Your task to perform on an android device: open app "Truecaller" (install if not already installed) Image 0: 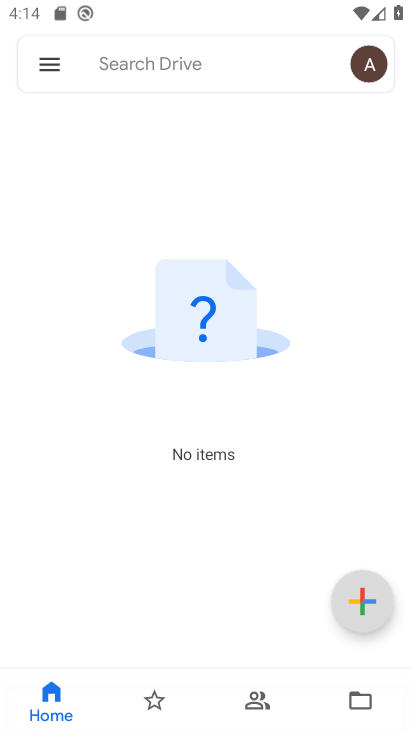
Step 0: press home button
Your task to perform on an android device: open app "Truecaller" (install if not already installed) Image 1: 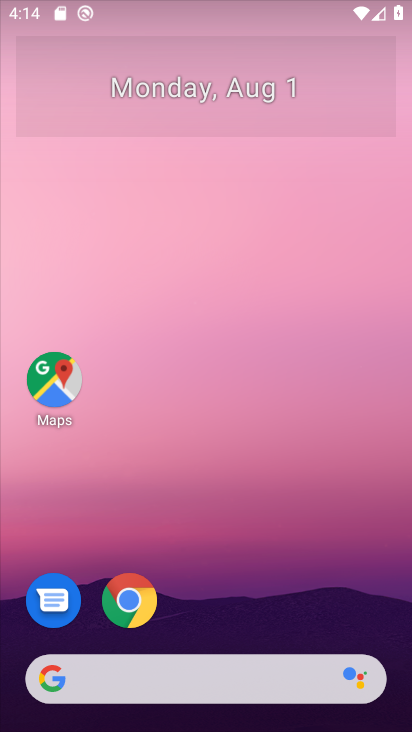
Step 1: drag from (303, 551) to (251, 62)
Your task to perform on an android device: open app "Truecaller" (install if not already installed) Image 2: 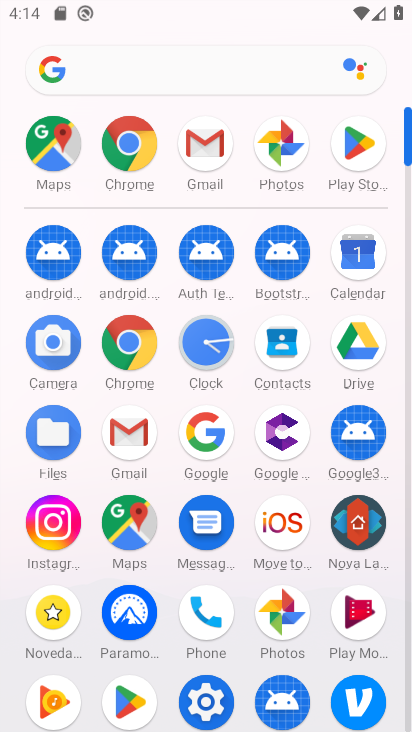
Step 2: click (360, 141)
Your task to perform on an android device: open app "Truecaller" (install if not already installed) Image 3: 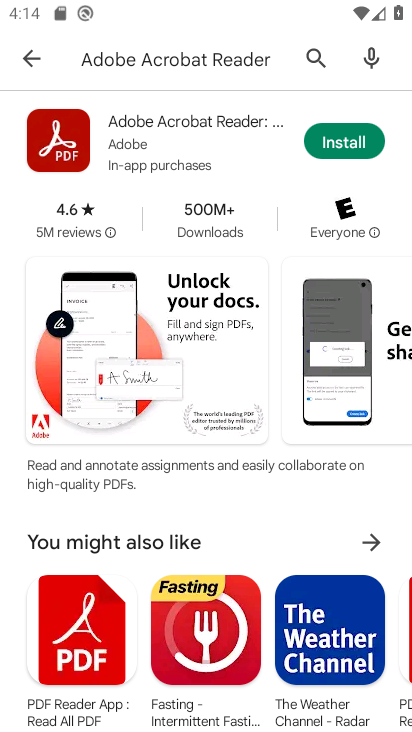
Step 3: click (262, 54)
Your task to perform on an android device: open app "Truecaller" (install if not already installed) Image 4: 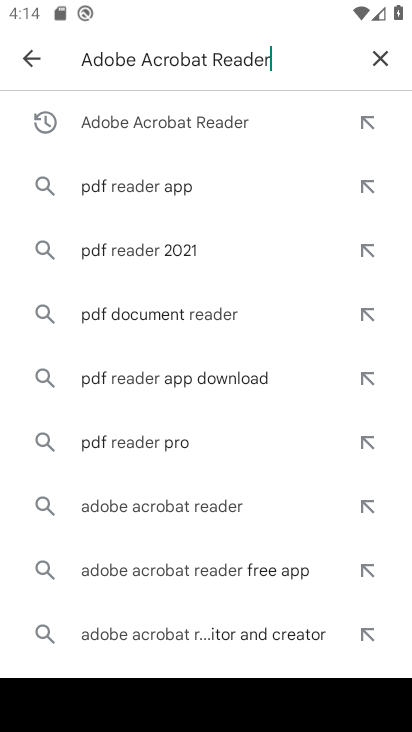
Step 4: click (364, 59)
Your task to perform on an android device: open app "Truecaller" (install if not already installed) Image 5: 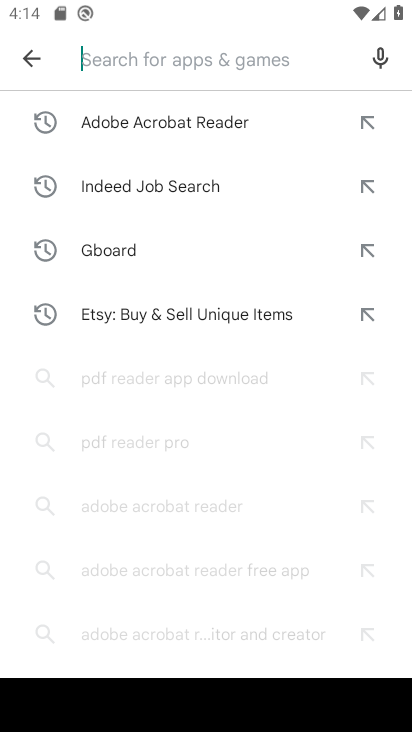
Step 5: click (378, 52)
Your task to perform on an android device: open app "Truecaller" (install if not already installed) Image 6: 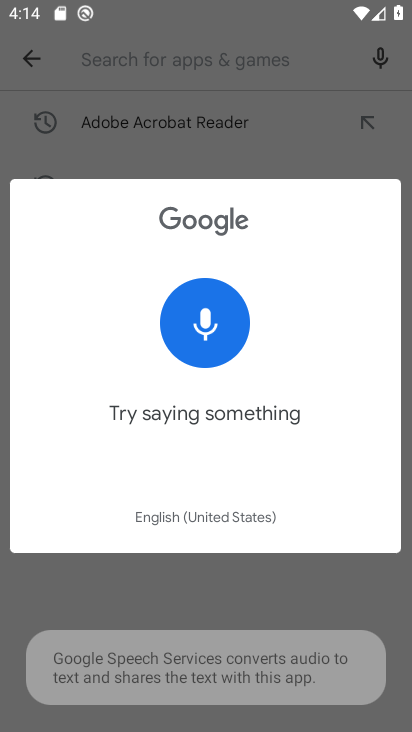
Step 6: click (329, 96)
Your task to perform on an android device: open app "Truecaller" (install if not already installed) Image 7: 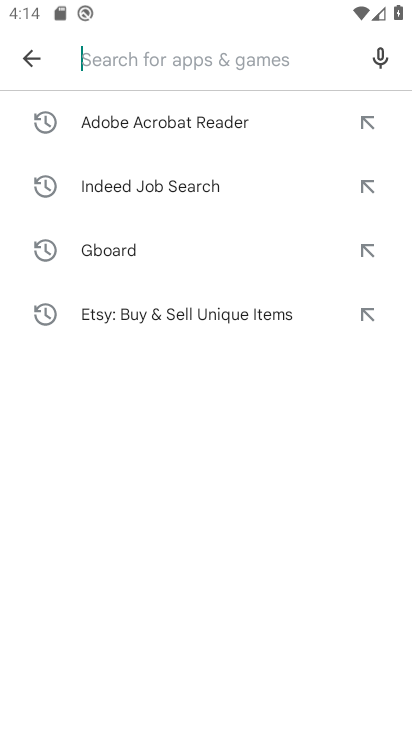
Step 7: click (310, 65)
Your task to perform on an android device: open app "Truecaller" (install if not already installed) Image 8: 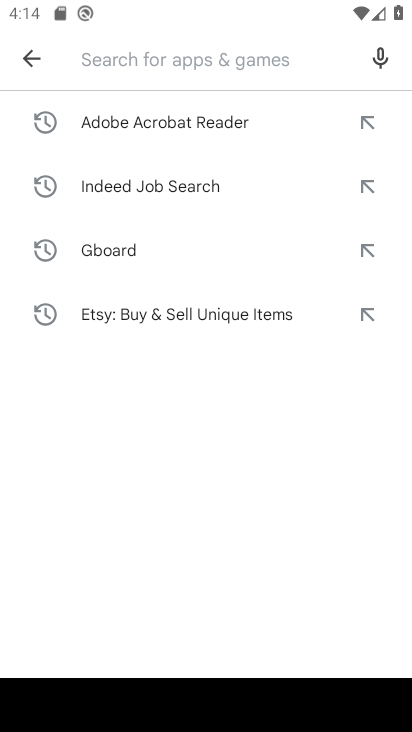
Step 8: type "Truecaller"
Your task to perform on an android device: open app "Truecaller" (install if not already installed) Image 9: 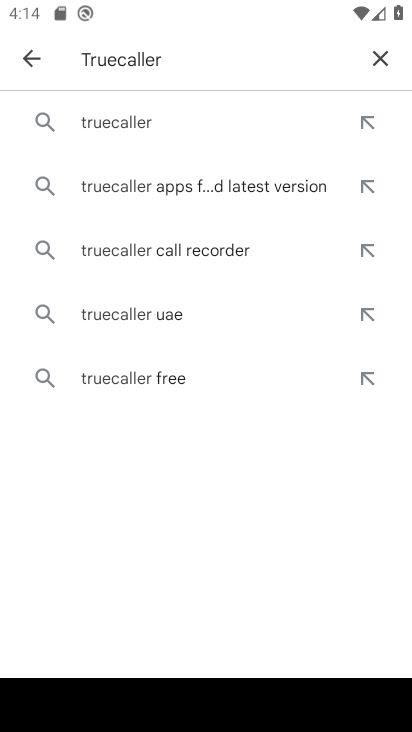
Step 9: press enter
Your task to perform on an android device: open app "Truecaller" (install if not already installed) Image 10: 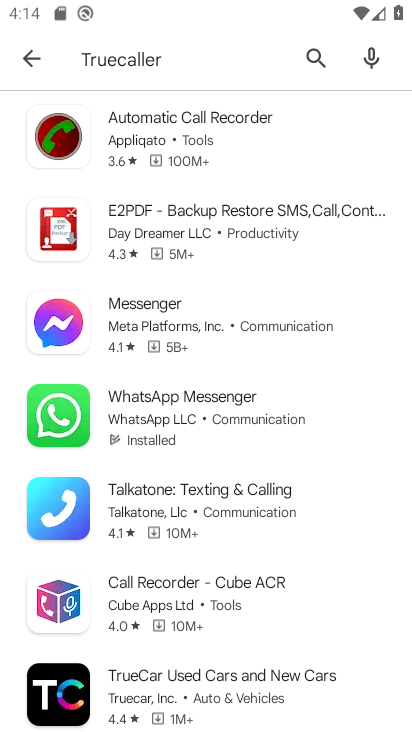
Step 10: task complete